Your task to perform on an android device: turn pop-ups off in chrome Image 0: 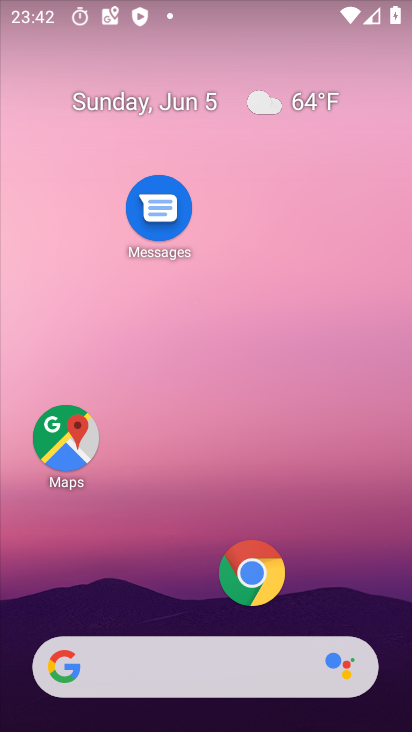
Step 0: click (252, 601)
Your task to perform on an android device: turn pop-ups off in chrome Image 1: 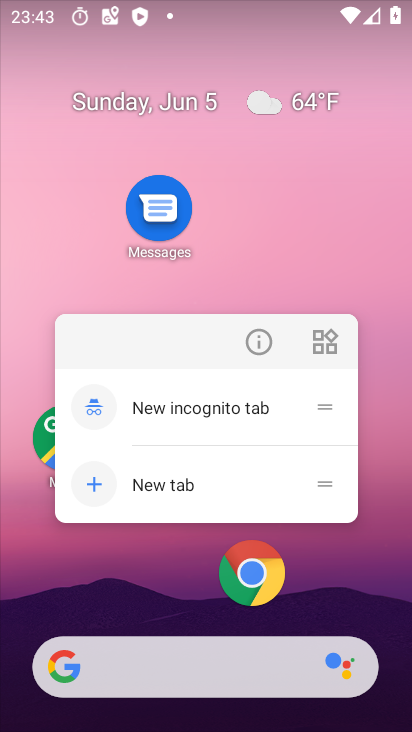
Step 1: click (265, 572)
Your task to perform on an android device: turn pop-ups off in chrome Image 2: 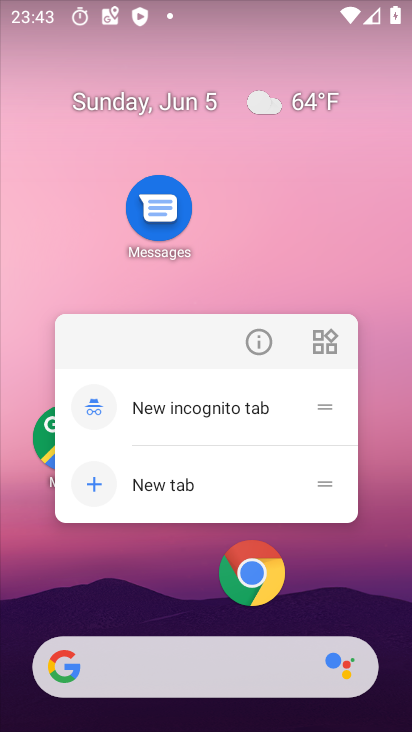
Step 2: click (277, 567)
Your task to perform on an android device: turn pop-ups off in chrome Image 3: 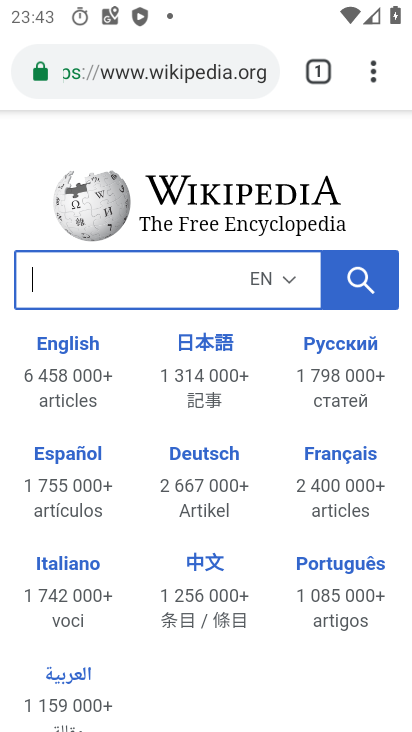
Step 3: click (366, 73)
Your task to perform on an android device: turn pop-ups off in chrome Image 4: 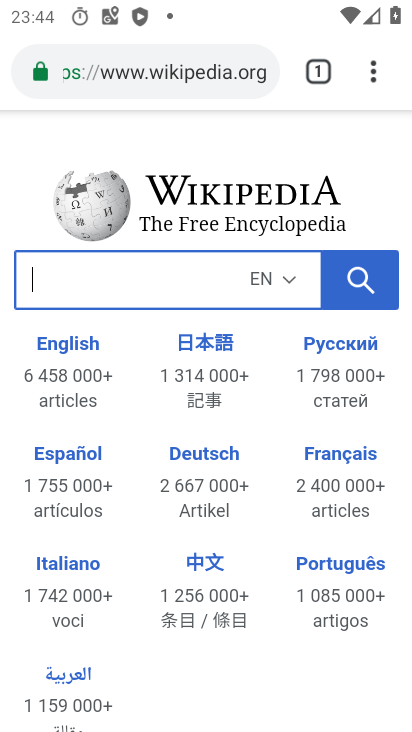
Step 4: click (66, 121)
Your task to perform on an android device: turn pop-ups off in chrome Image 5: 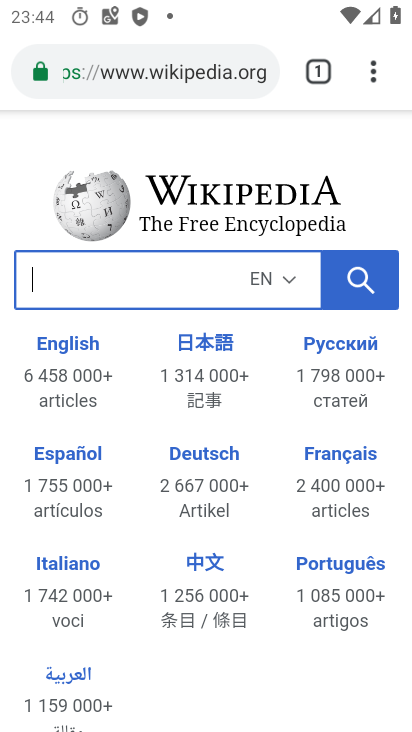
Step 5: drag from (367, 65) to (98, 551)
Your task to perform on an android device: turn pop-ups off in chrome Image 6: 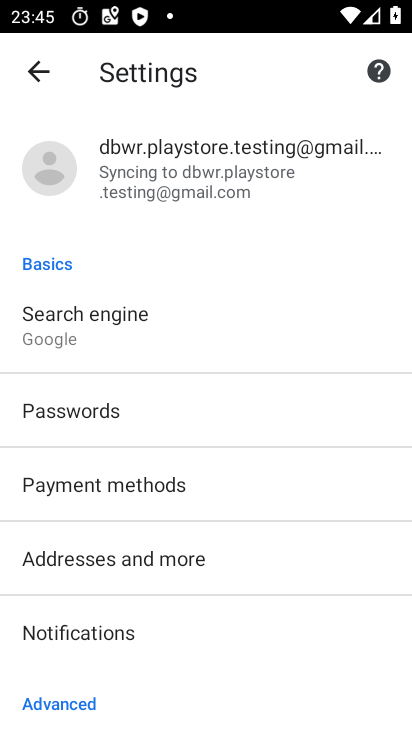
Step 6: drag from (141, 630) to (78, 156)
Your task to perform on an android device: turn pop-ups off in chrome Image 7: 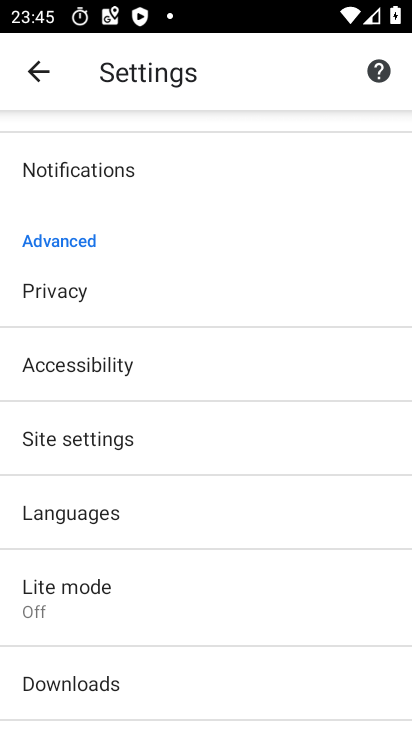
Step 7: click (98, 451)
Your task to perform on an android device: turn pop-ups off in chrome Image 8: 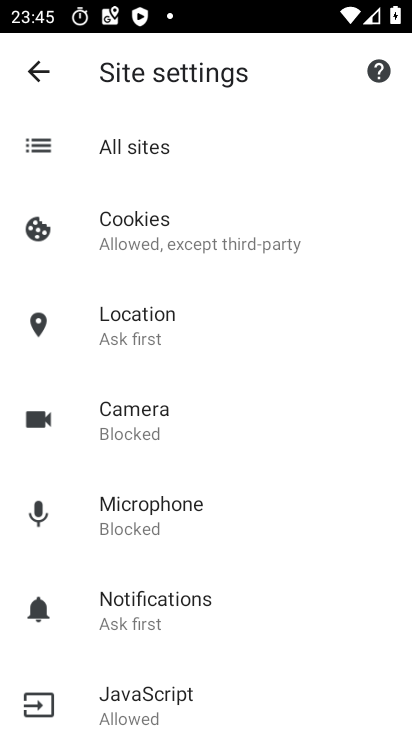
Step 8: drag from (143, 633) to (100, 177)
Your task to perform on an android device: turn pop-ups off in chrome Image 9: 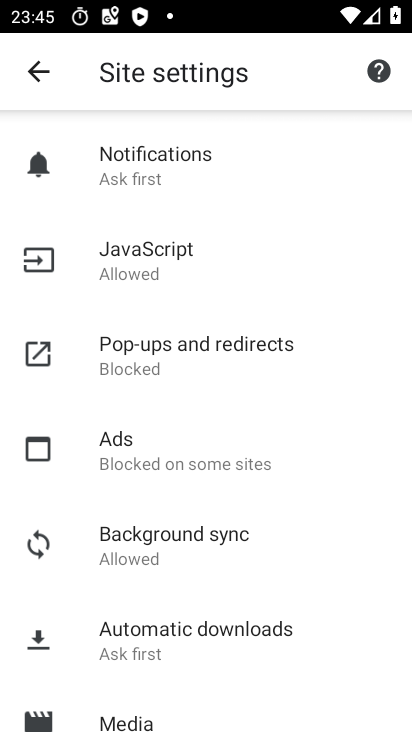
Step 9: click (118, 344)
Your task to perform on an android device: turn pop-ups off in chrome Image 10: 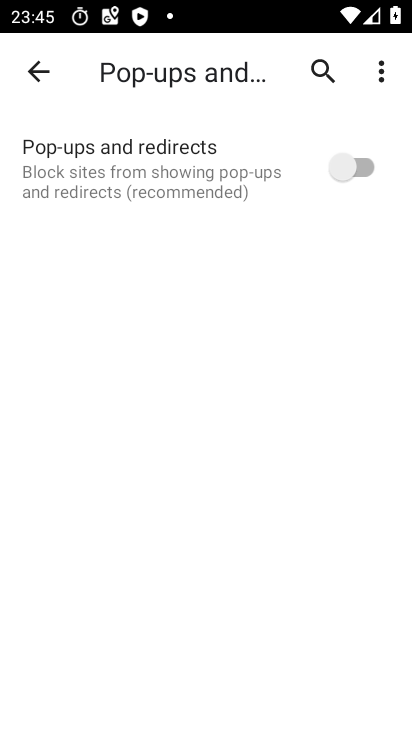
Step 10: task complete